Your task to perform on an android device: set the stopwatch Image 0: 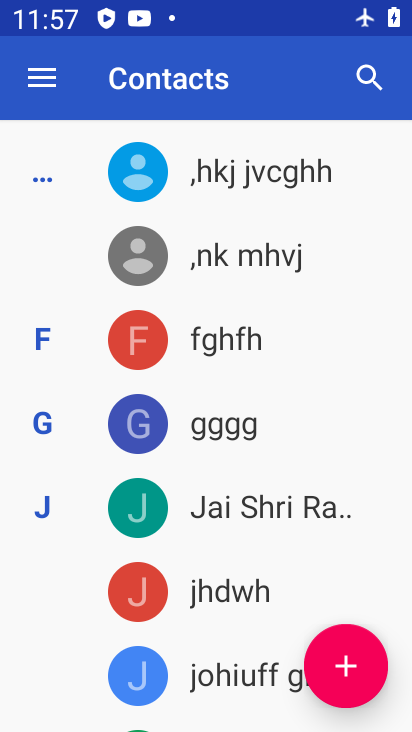
Step 0: press home button
Your task to perform on an android device: set the stopwatch Image 1: 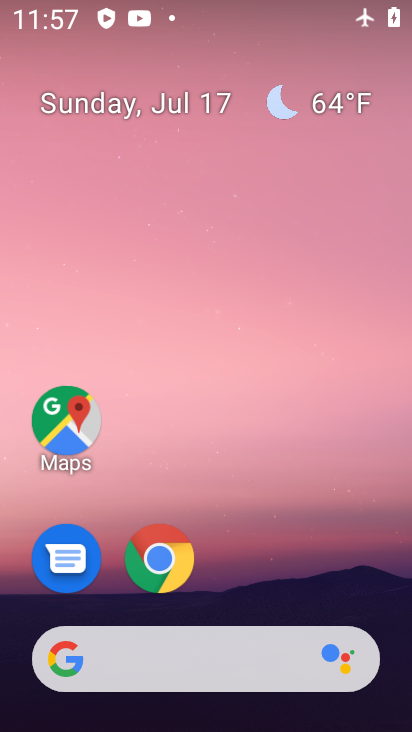
Step 1: drag from (376, 546) to (394, 127)
Your task to perform on an android device: set the stopwatch Image 2: 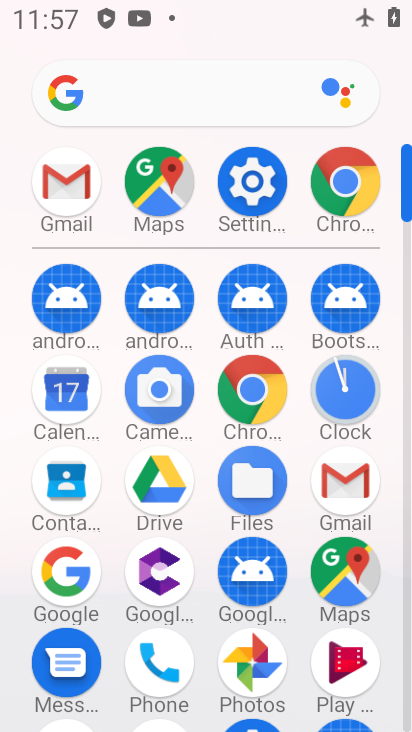
Step 2: click (353, 402)
Your task to perform on an android device: set the stopwatch Image 3: 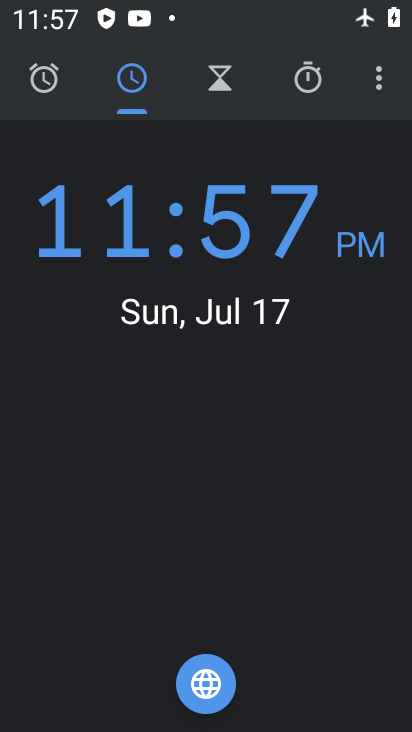
Step 3: click (317, 85)
Your task to perform on an android device: set the stopwatch Image 4: 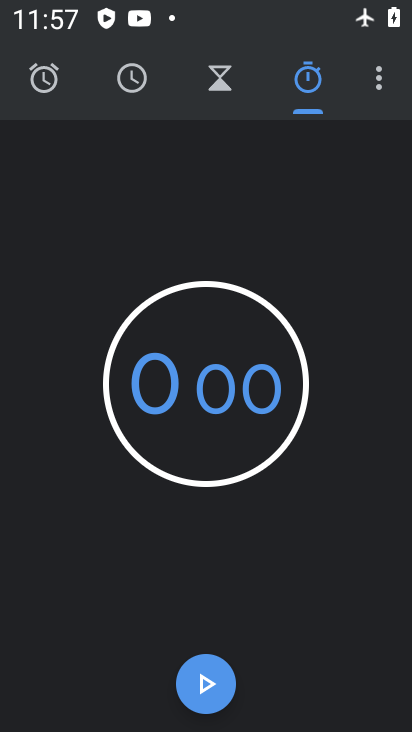
Step 4: click (203, 687)
Your task to perform on an android device: set the stopwatch Image 5: 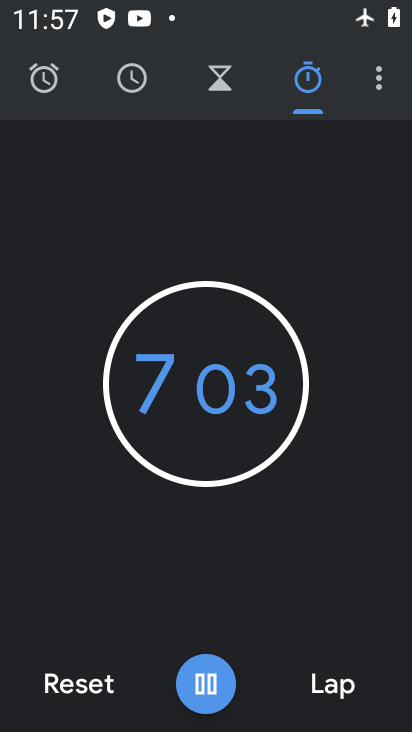
Step 5: task complete